Your task to perform on an android device: toggle improve location accuracy Image 0: 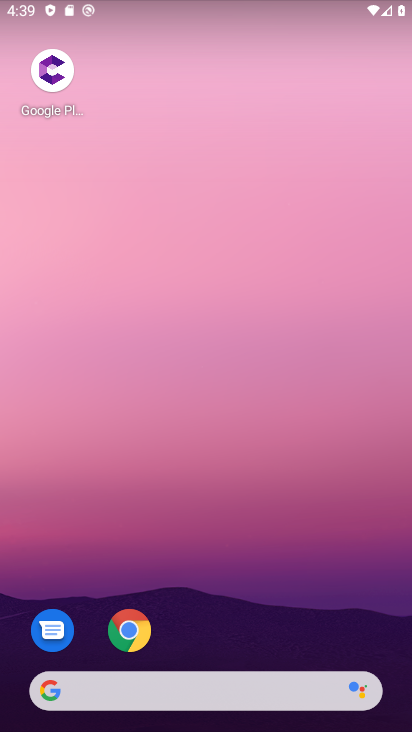
Step 0: drag from (210, 592) to (281, 98)
Your task to perform on an android device: toggle improve location accuracy Image 1: 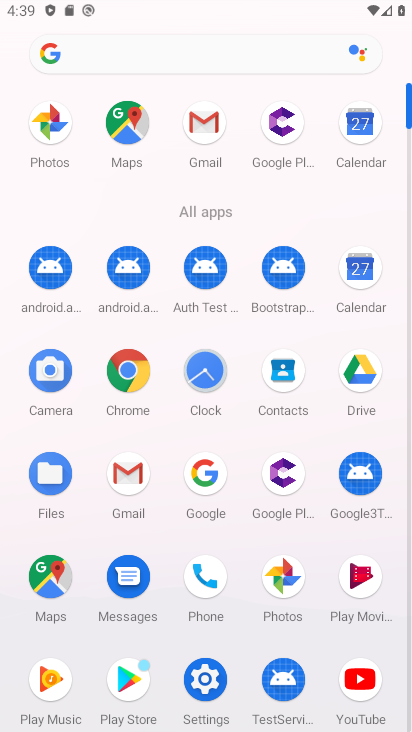
Step 1: drag from (227, 563) to (291, 289)
Your task to perform on an android device: toggle improve location accuracy Image 2: 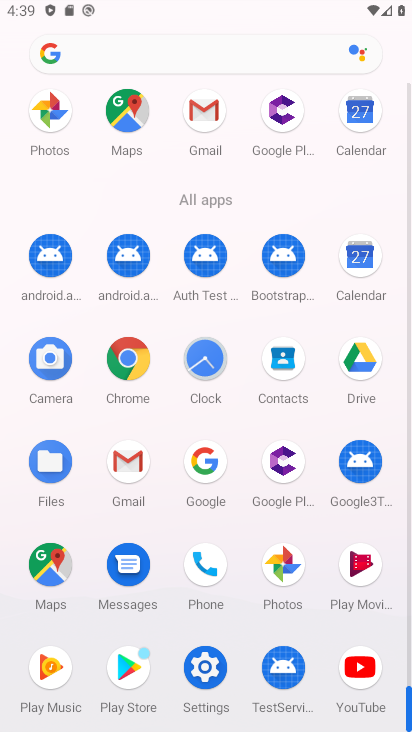
Step 2: click (206, 675)
Your task to perform on an android device: toggle improve location accuracy Image 3: 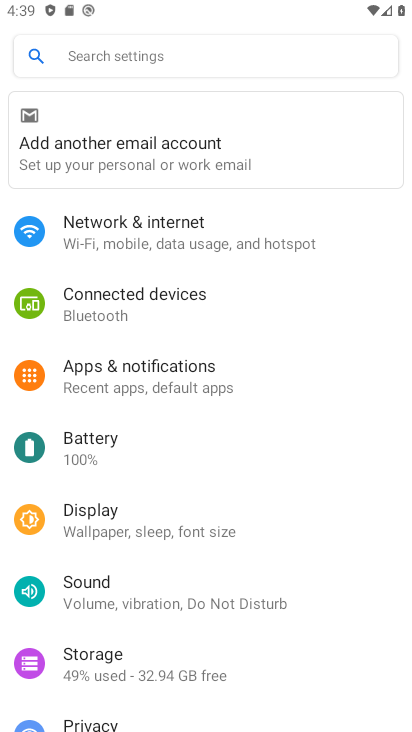
Step 3: drag from (250, 631) to (349, 263)
Your task to perform on an android device: toggle improve location accuracy Image 4: 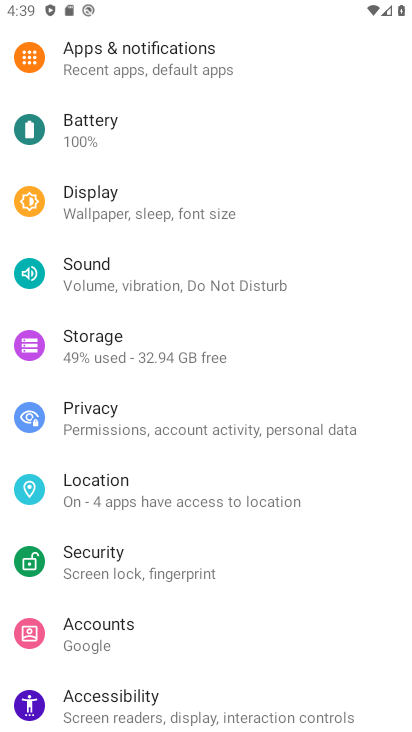
Step 4: click (94, 479)
Your task to perform on an android device: toggle improve location accuracy Image 5: 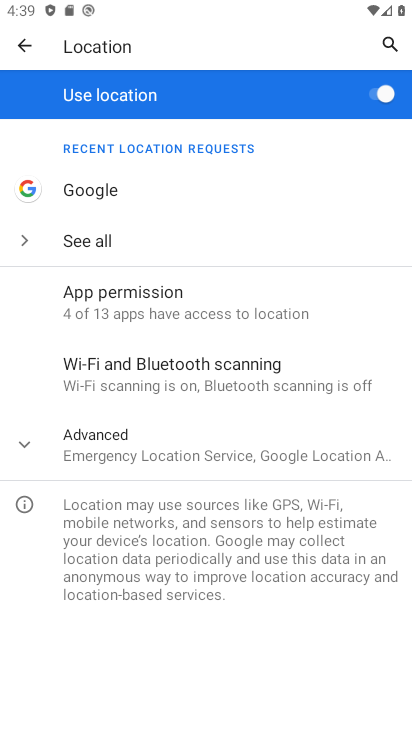
Step 5: click (177, 459)
Your task to perform on an android device: toggle improve location accuracy Image 6: 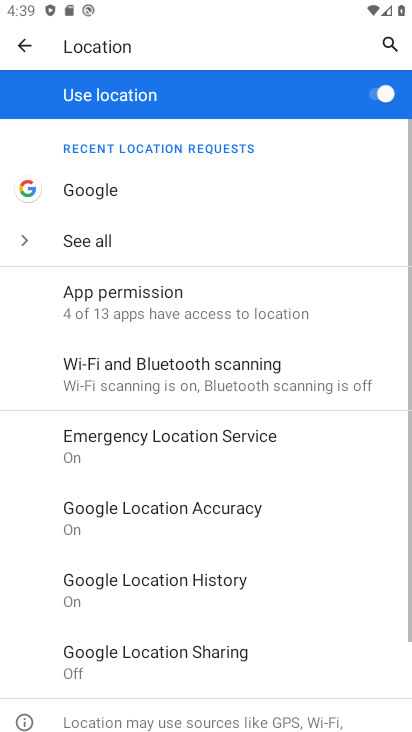
Step 6: drag from (227, 610) to (293, 409)
Your task to perform on an android device: toggle improve location accuracy Image 7: 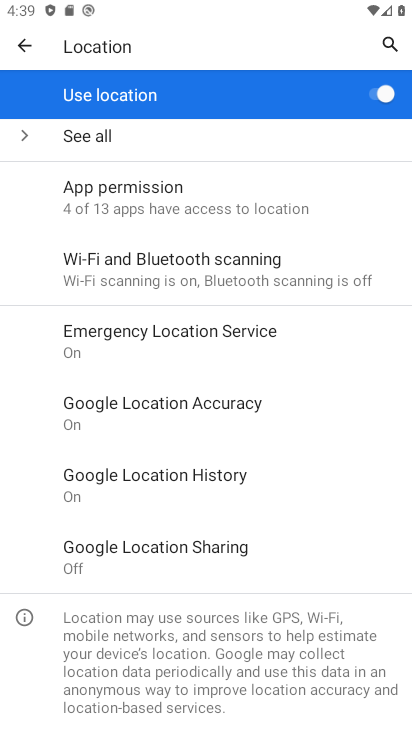
Step 7: drag from (199, 647) to (257, 464)
Your task to perform on an android device: toggle improve location accuracy Image 8: 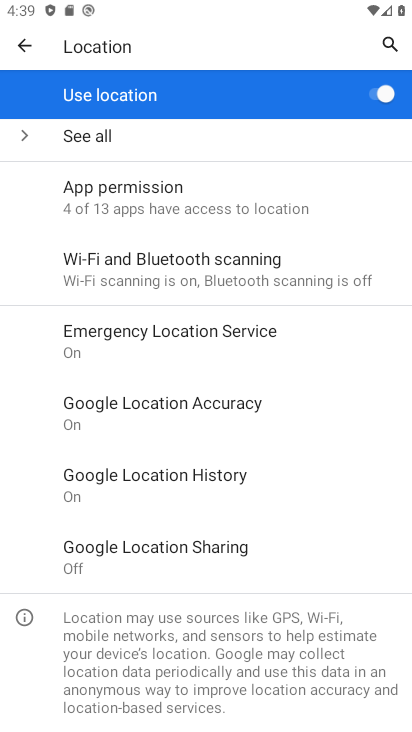
Step 8: click (215, 393)
Your task to perform on an android device: toggle improve location accuracy Image 9: 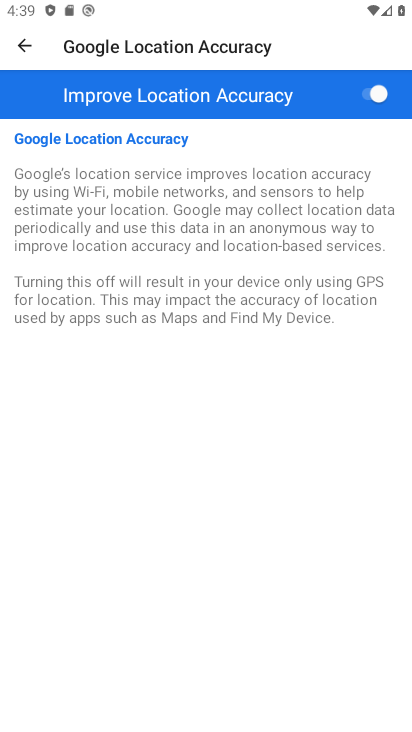
Step 9: click (354, 93)
Your task to perform on an android device: toggle improve location accuracy Image 10: 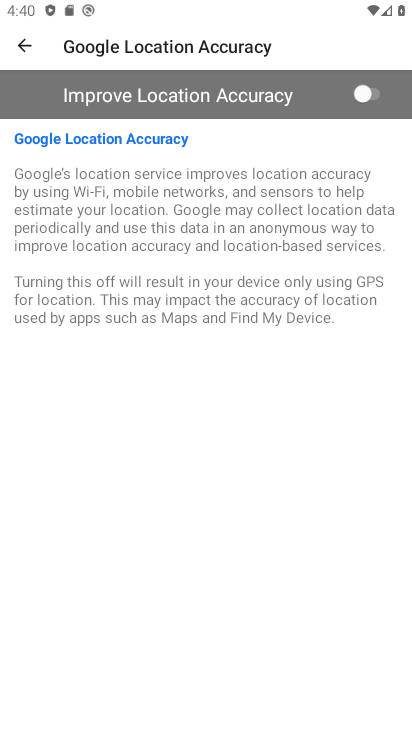
Step 10: task complete